Your task to perform on an android device: What's on my calendar today? Image 0: 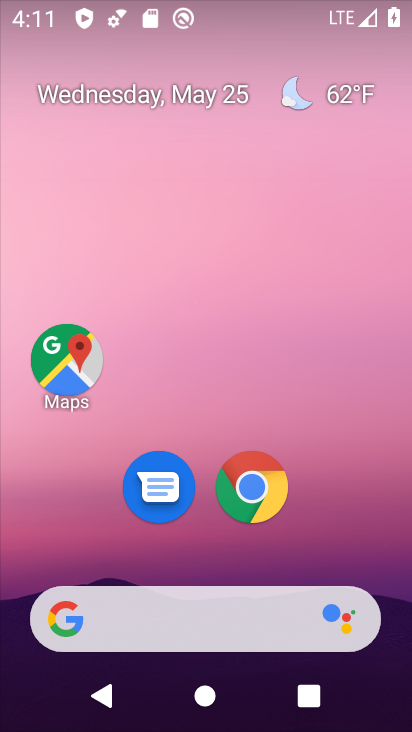
Step 0: drag from (361, 550) to (333, 0)
Your task to perform on an android device: What's on my calendar today? Image 1: 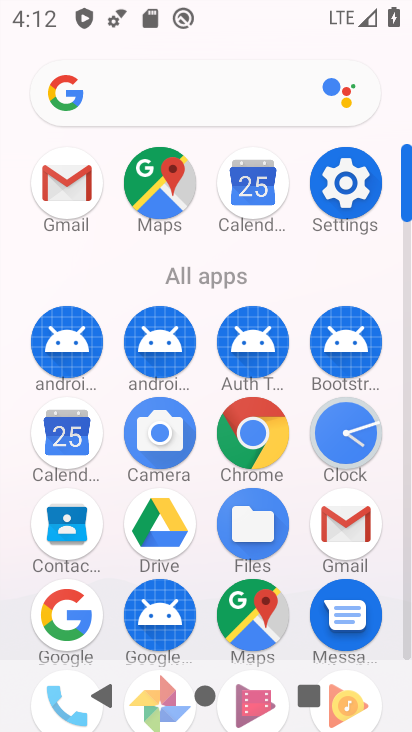
Step 1: click (70, 422)
Your task to perform on an android device: What's on my calendar today? Image 2: 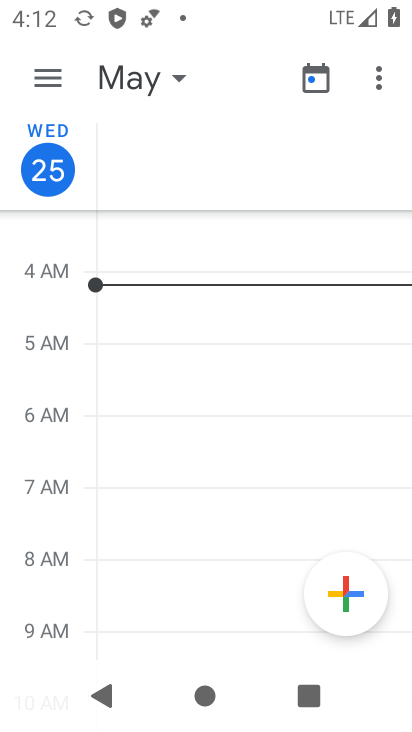
Step 2: task complete